Your task to perform on an android device: Play the last video I watched on Youtube Image 0: 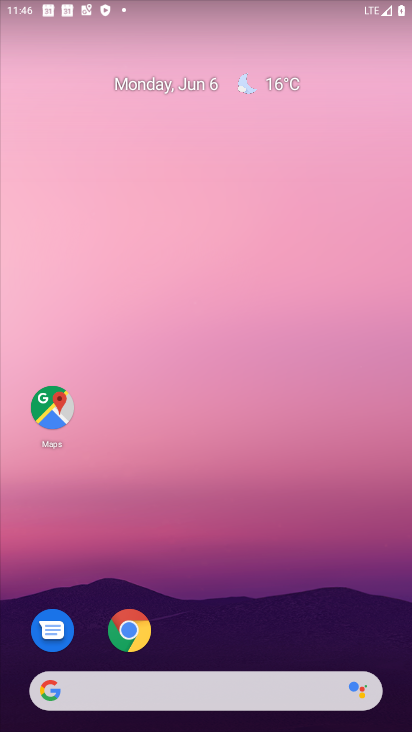
Step 0: drag from (250, 637) to (324, 12)
Your task to perform on an android device: Play the last video I watched on Youtube Image 1: 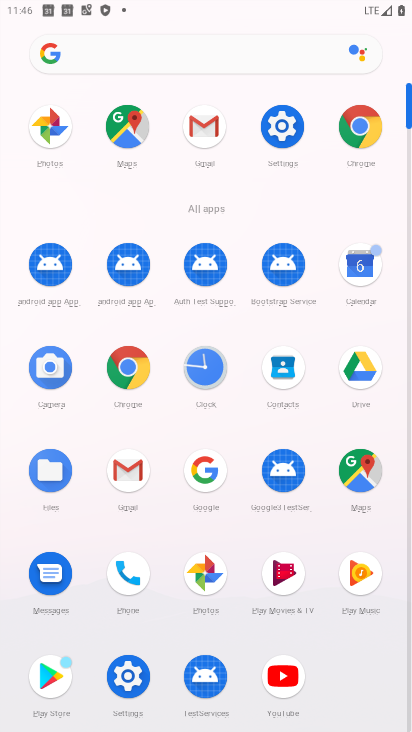
Step 1: click (278, 681)
Your task to perform on an android device: Play the last video I watched on Youtube Image 2: 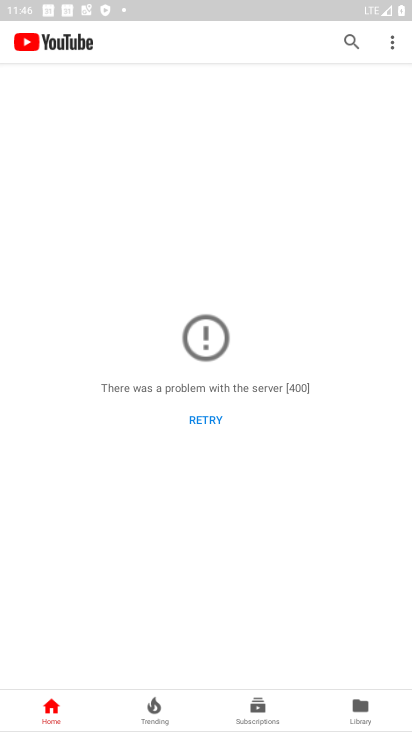
Step 2: click (359, 707)
Your task to perform on an android device: Play the last video I watched on Youtube Image 3: 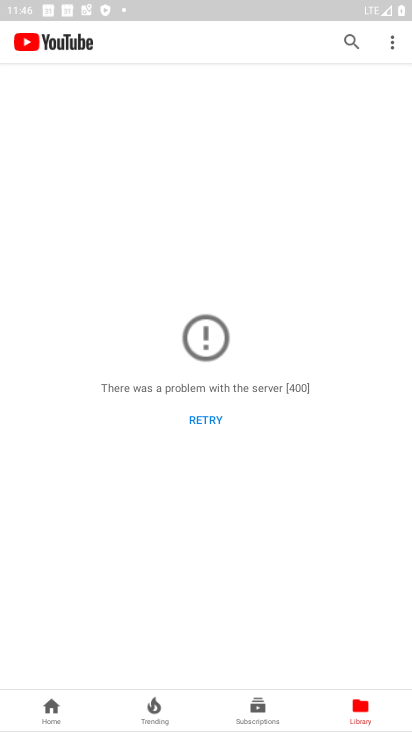
Step 3: task complete